Your task to perform on an android device: star an email in the gmail app Image 0: 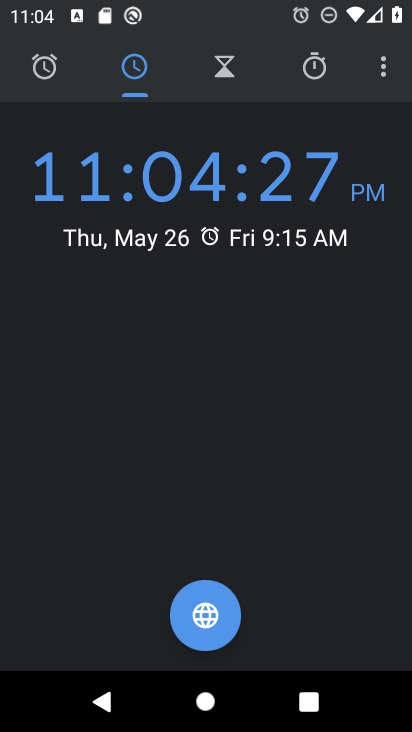
Step 0: press home button
Your task to perform on an android device: star an email in the gmail app Image 1: 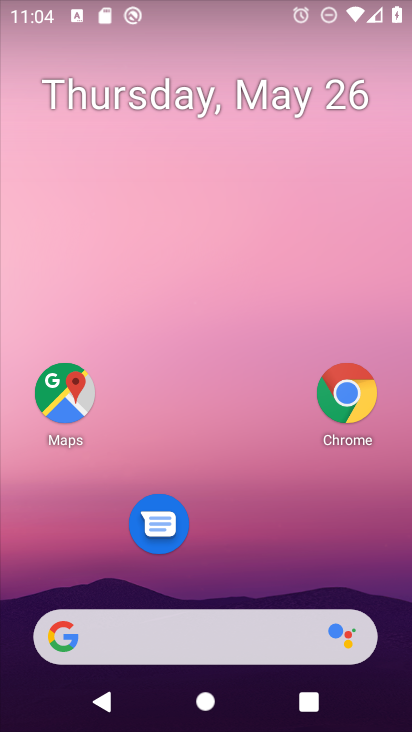
Step 1: drag from (207, 543) to (174, 41)
Your task to perform on an android device: star an email in the gmail app Image 2: 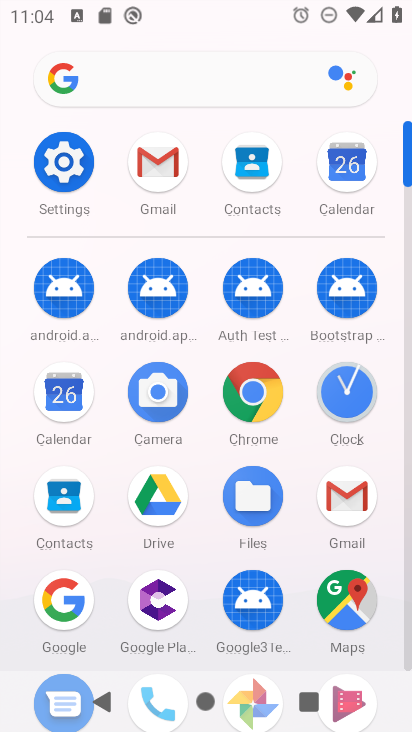
Step 2: click (157, 150)
Your task to perform on an android device: star an email in the gmail app Image 3: 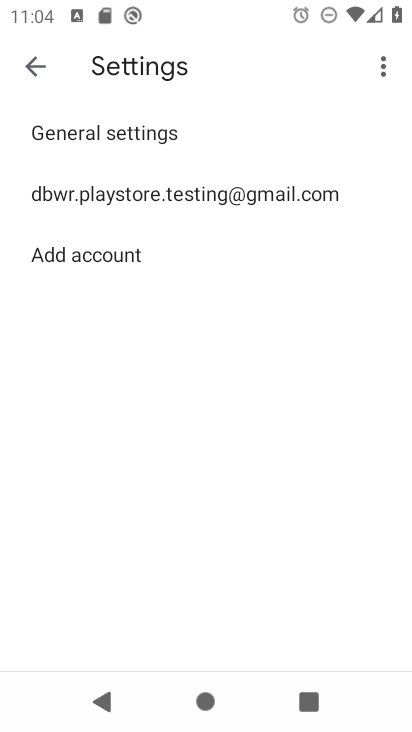
Step 3: click (42, 60)
Your task to perform on an android device: star an email in the gmail app Image 4: 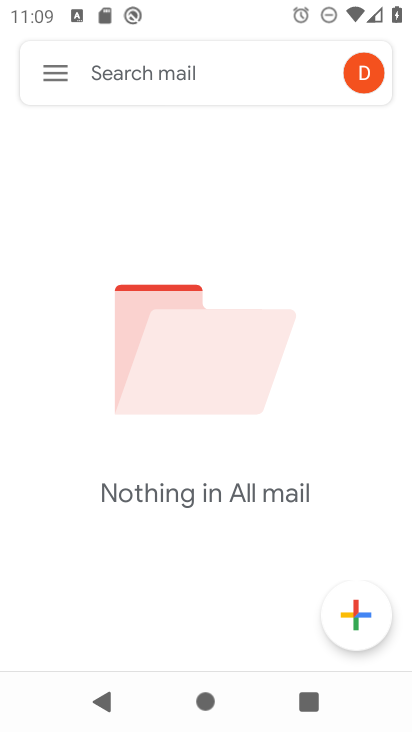
Step 4: task complete